Your task to perform on an android device: How big is a tiger? Image 0: 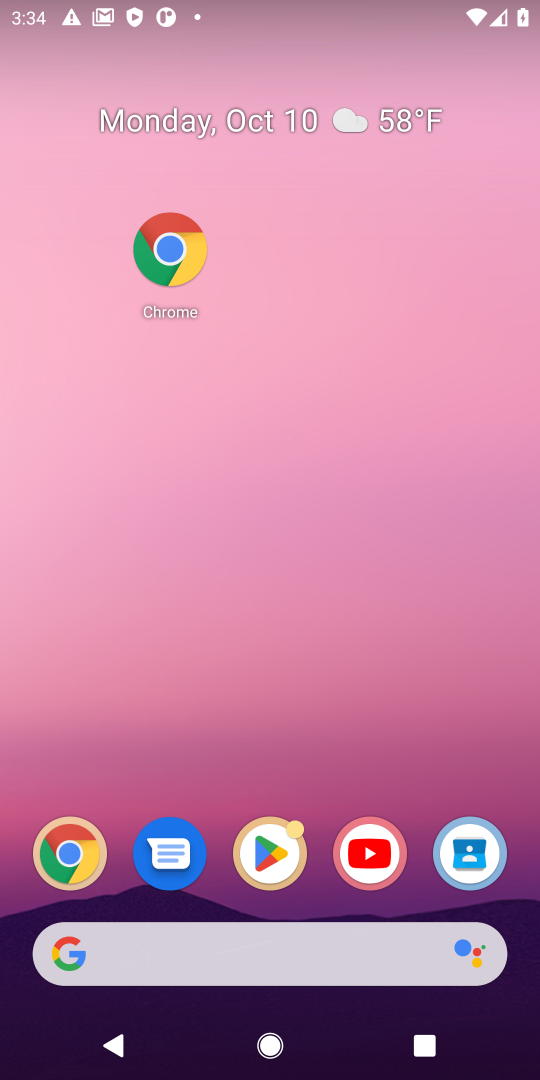
Step 0: click (48, 860)
Your task to perform on an android device: How big is a tiger? Image 1: 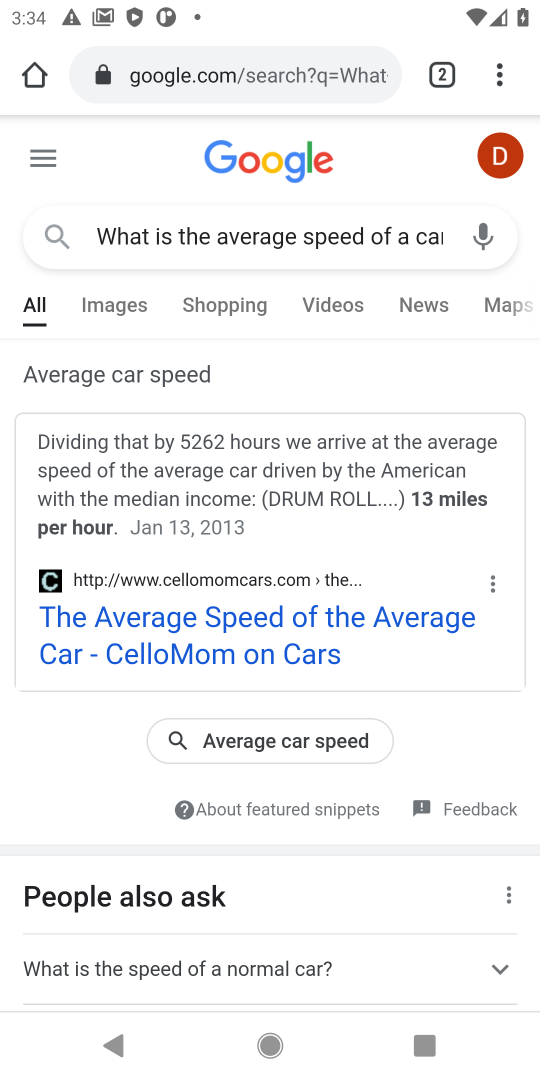
Step 1: click (248, 76)
Your task to perform on an android device: How big is a tiger? Image 2: 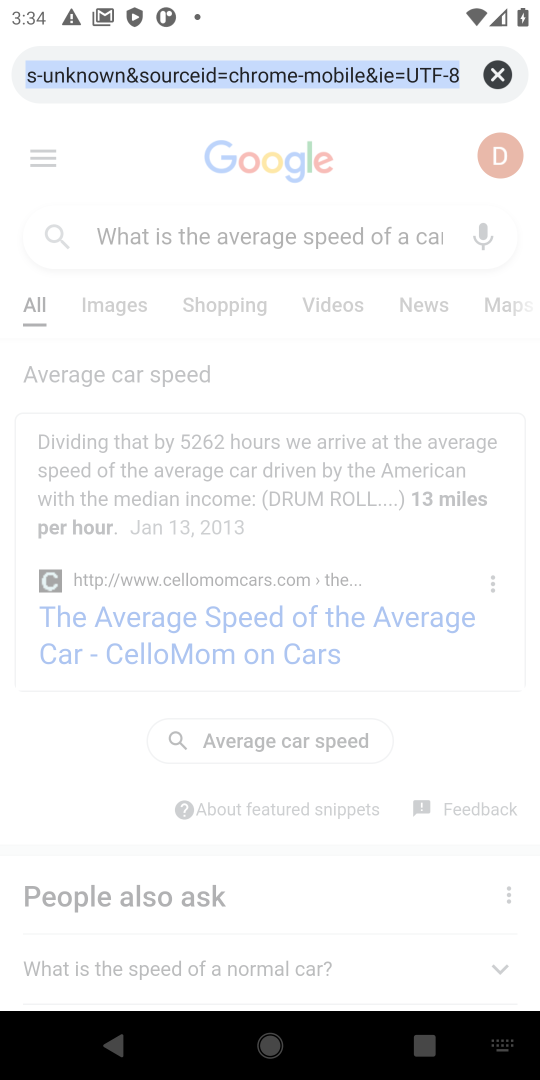
Step 2: click (248, 76)
Your task to perform on an android device: How big is a tiger? Image 3: 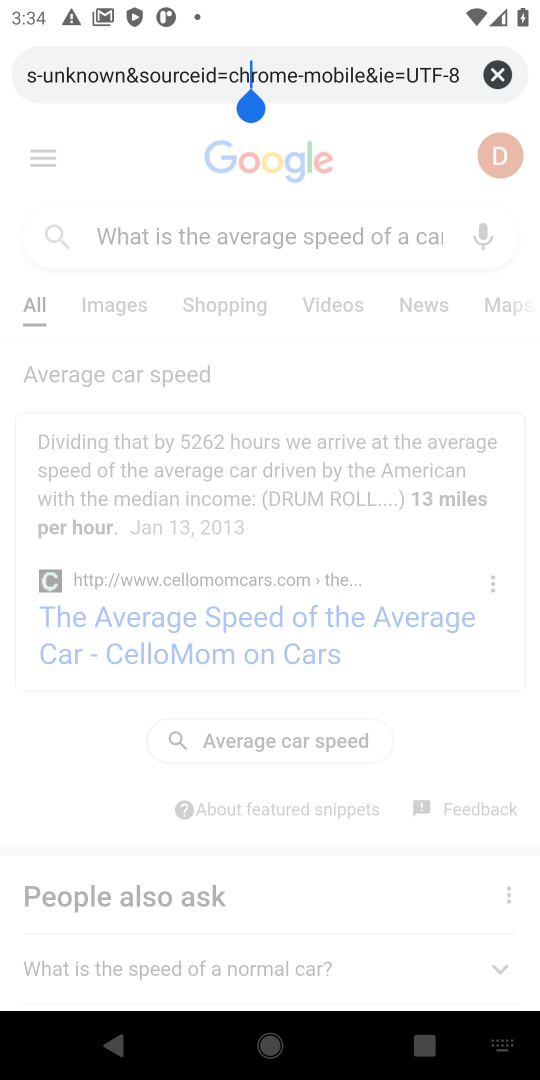
Step 3: click (186, 78)
Your task to perform on an android device: How big is a tiger? Image 4: 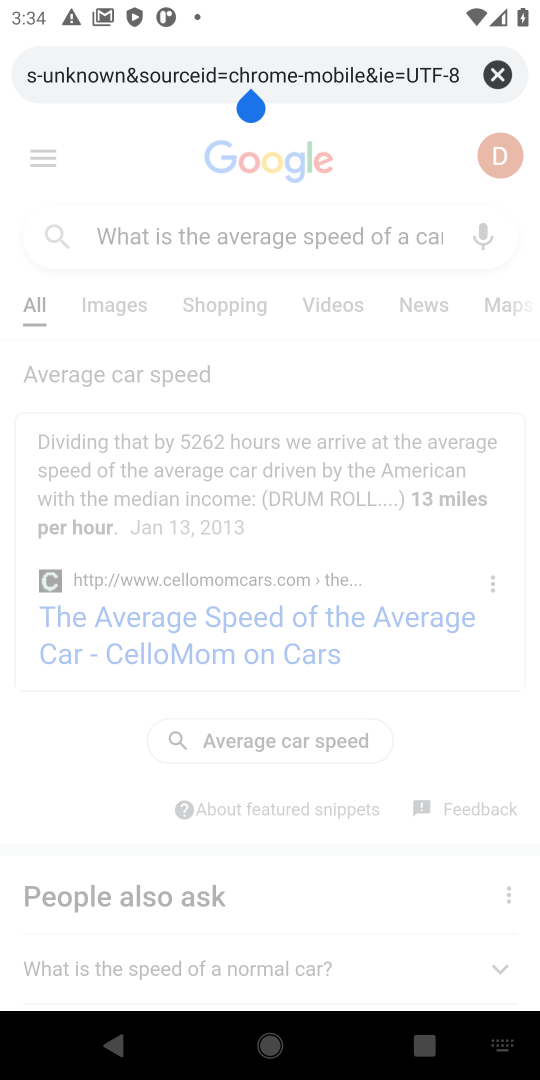
Step 4: click (186, 78)
Your task to perform on an android device: How big is a tiger? Image 5: 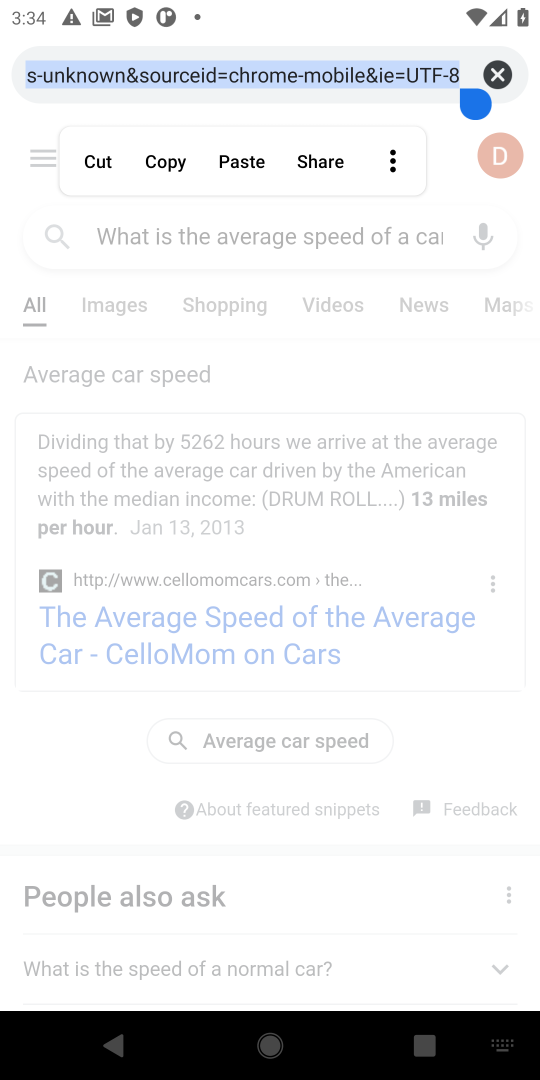
Step 5: type "How big is a tiger?"
Your task to perform on an android device: How big is a tiger? Image 6: 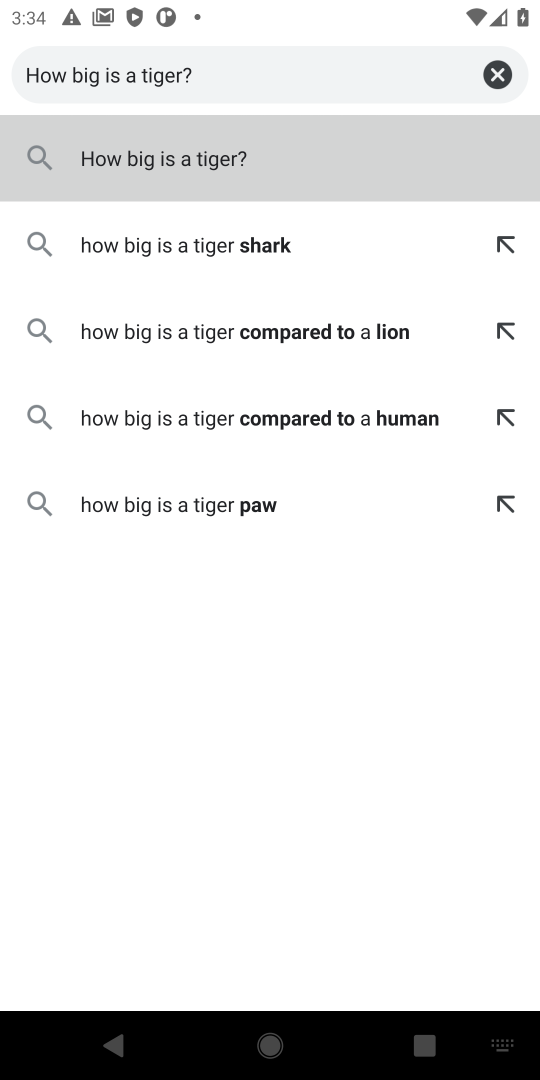
Step 6: click (255, 170)
Your task to perform on an android device: How big is a tiger? Image 7: 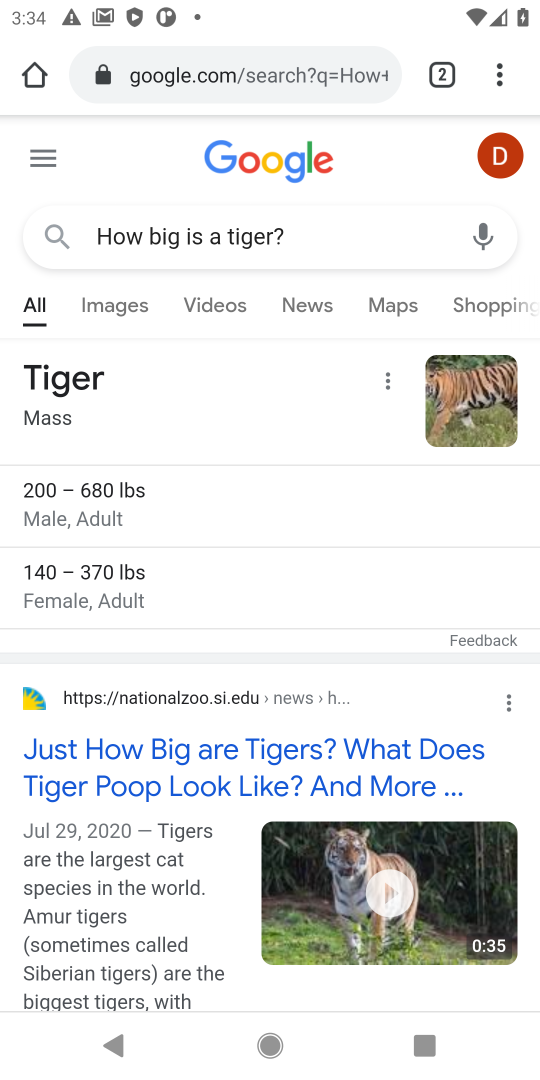
Step 7: task complete